Your task to perform on an android device: check android version Image 0: 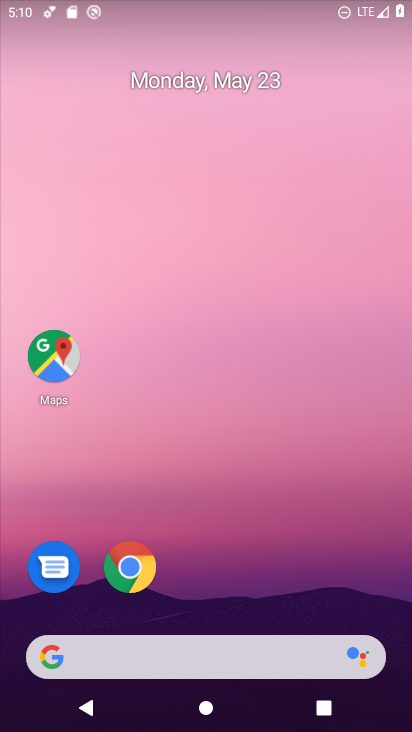
Step 0: drag from (233, 577) to (264, 2)
Your task to perform on an android device: check android version Image 1: 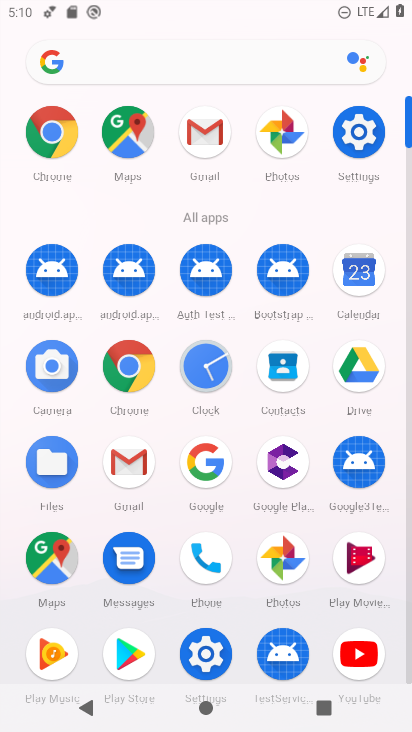
Step 1: click (360, 131)
Your task to perform on an android device: check android version Image 2: 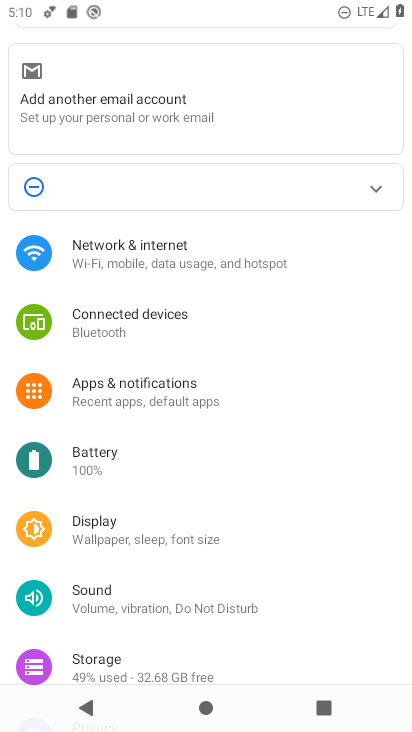
Step 2: drag from (157, 502) to (226, 393)
Your task to perform on an android device: check android version Image 3: 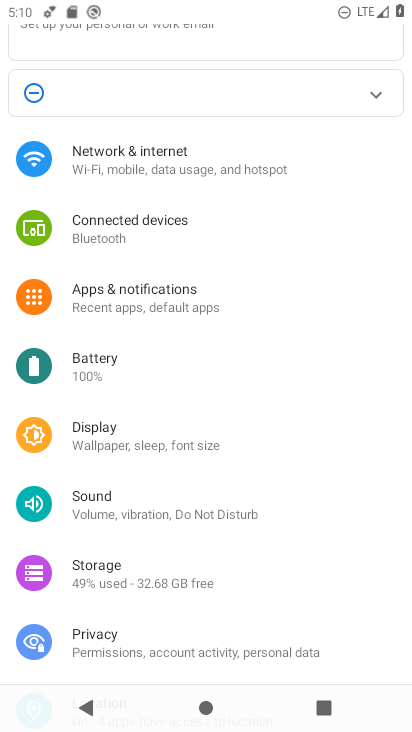
Step 3: drag from (155, 615) to (238, 510)
Your task to perform on an android device: check android version Image 4: 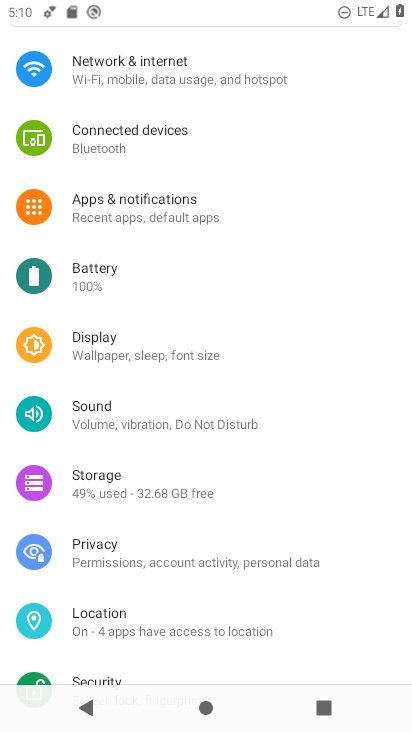
Step 4: drag from (138, 650) to (206, 528)
Your task to perform on an android device: check android version Image 5: 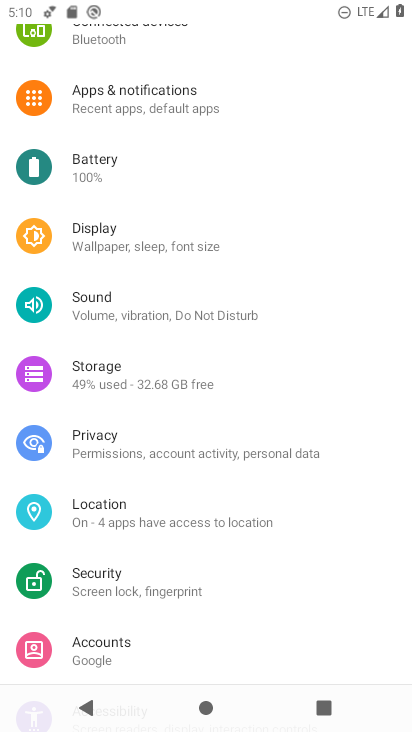
Step 5: drag from (154, 624) to (231, 483)
Your task to perform on an android device: check android version Image 6: 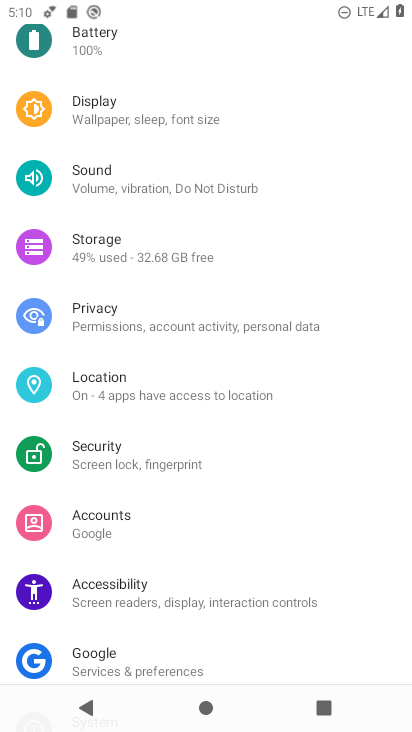
Step 6: drag from (149, 627) to (204, 537)
Your task to perform on an android device: check android version Image 7: 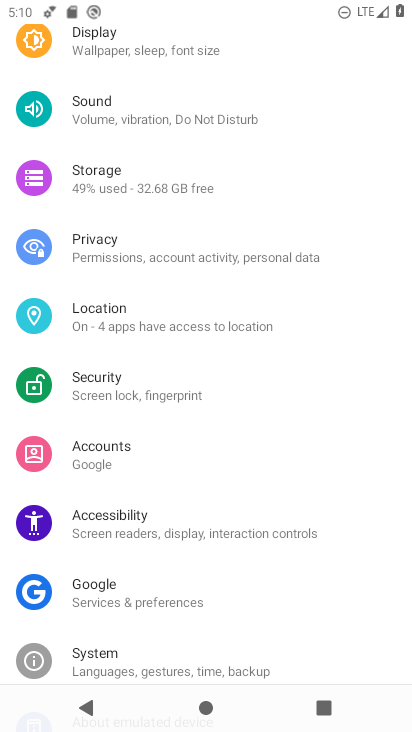
Step 7: drag from (159, 634) to (274, 513)
Your task to perform on an android device: check android version Image 8: 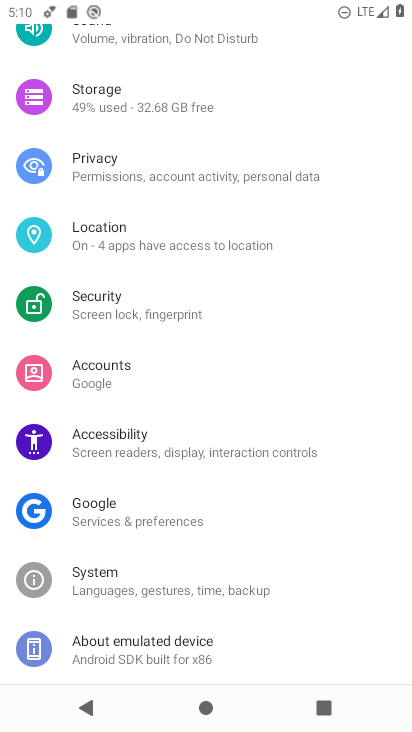
Step 8: click (150, 639)
Your task to perform on an android device: check android version Image 9: 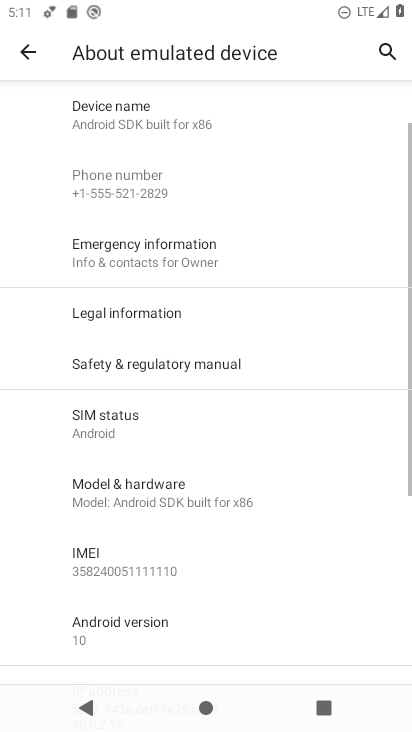
Step 9: click (124, 622)
Your task to perform on an android device: check android version Image 10: 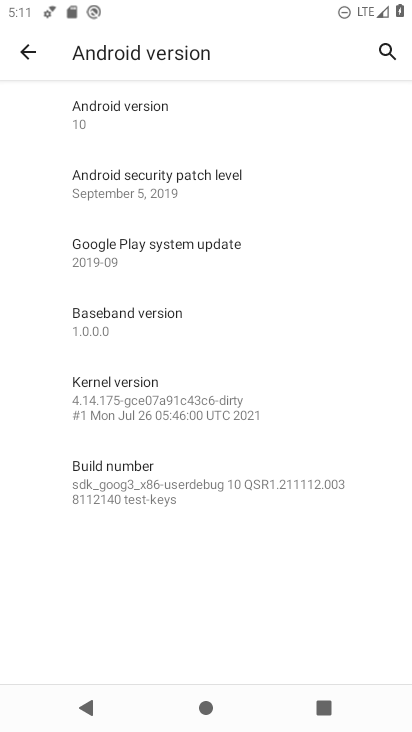
Step 10: task complete